Your task to perform on an android device: show emergency info Image 0: 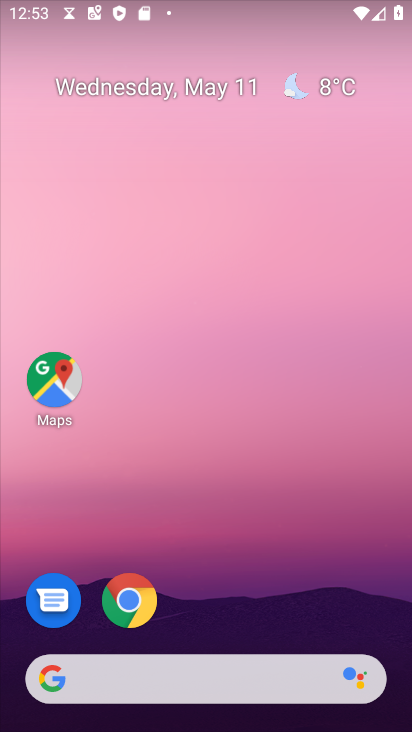
Step 0: drag from (308, 583) to (231, 34)
Your task to perform on an android device: show emergency info Image 1: 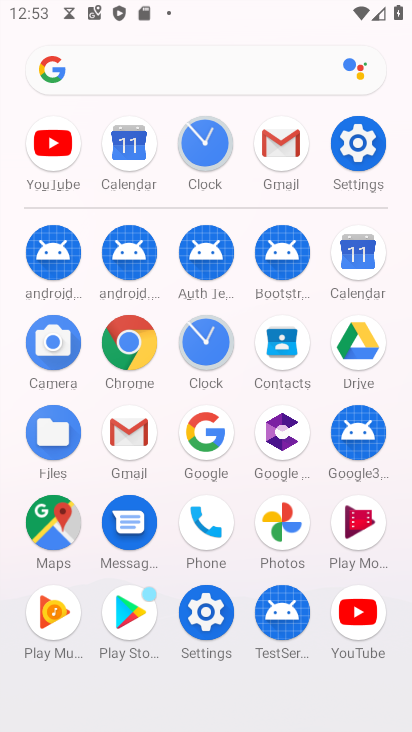
Step 1: click (211, 623)
Your task to perform on an android device: show emergency info Image 2: 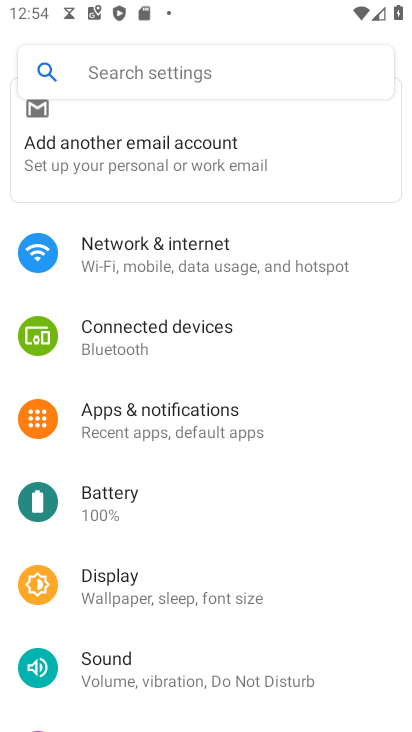
Step 2: drag from (256, 645) to (228, 106)
Your task to perform on an android device: show emergency info Image 3: 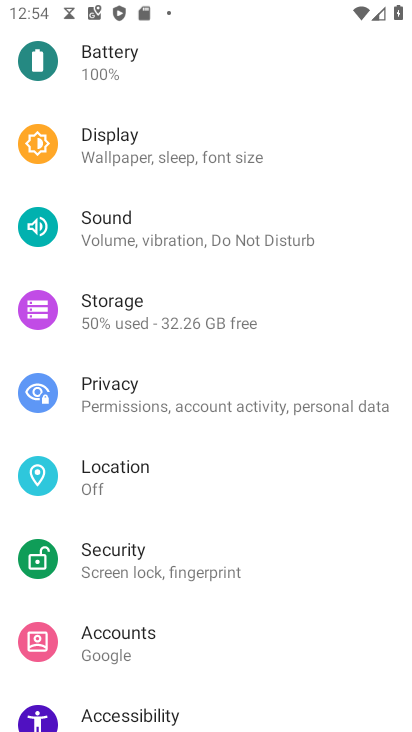
Step 3: drag from (194, 627) to (165, 98)
Your task to perform on an android device: show emergency info Image 4: 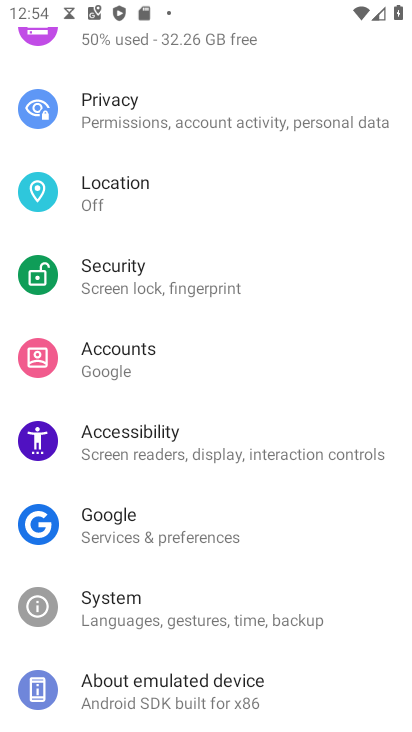
Step 4: click (203, 684)
Your task to perform on an android device: show emergency info Image 5: 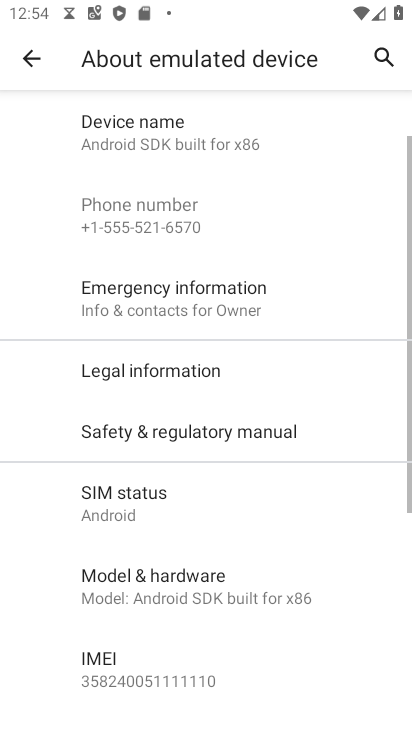
Step 5: click (192, 300)
Your task to perform on an android device: show emergency info Image 6: 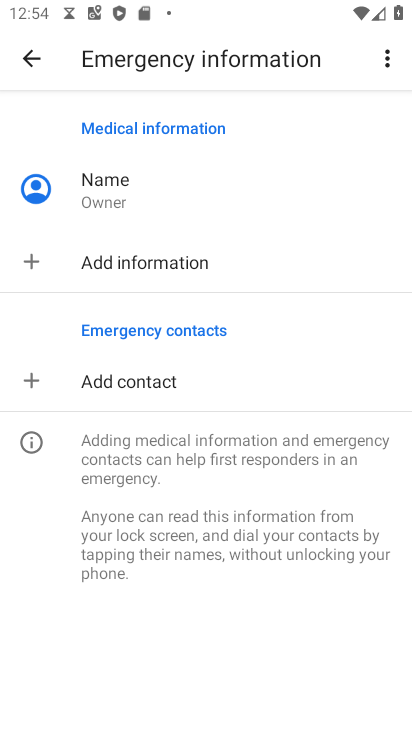
Step 6: task complete